Your task to perform on an android device: Search for panasonic triple a on target, select the first entry, add it to the cart, then select checkout. Image 0: 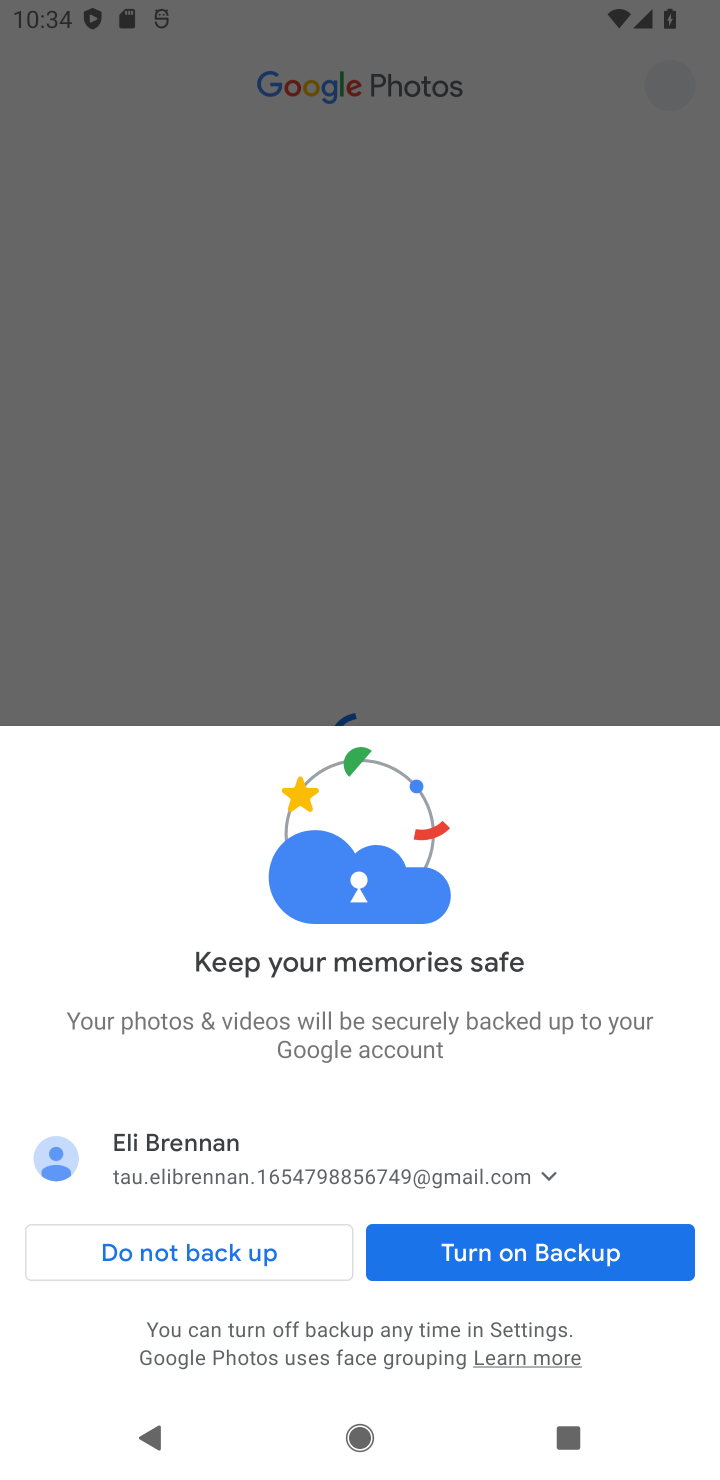
Step 0: press home button
Your task to perform on an android device: Search for panasonic triple a on target, select the first entry, add it to the cart, then select checkout. Image 1: 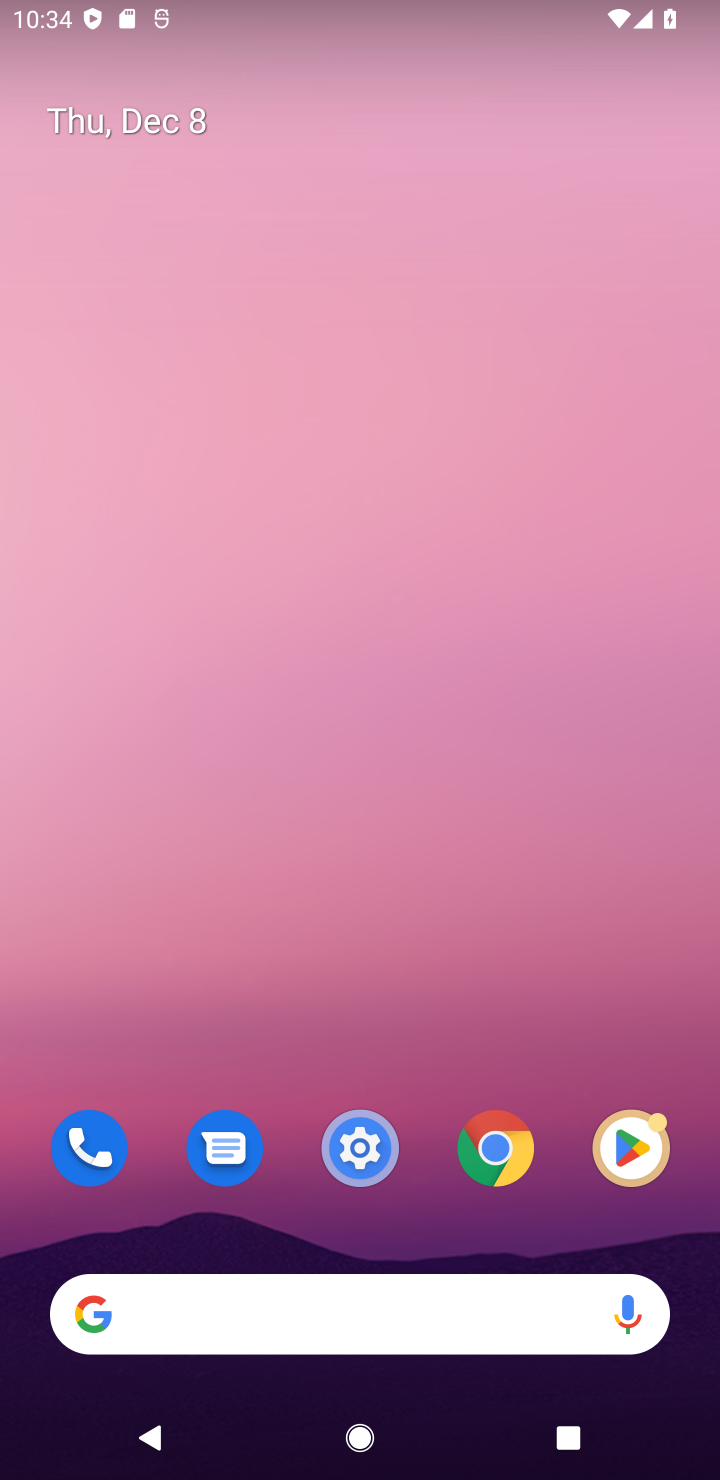
Step 1: click (260, 1309)
Your task to perform on an android device: Search for panasonic triple a on target, select the first entry, add it to the cart, then select checkout. Image 2: 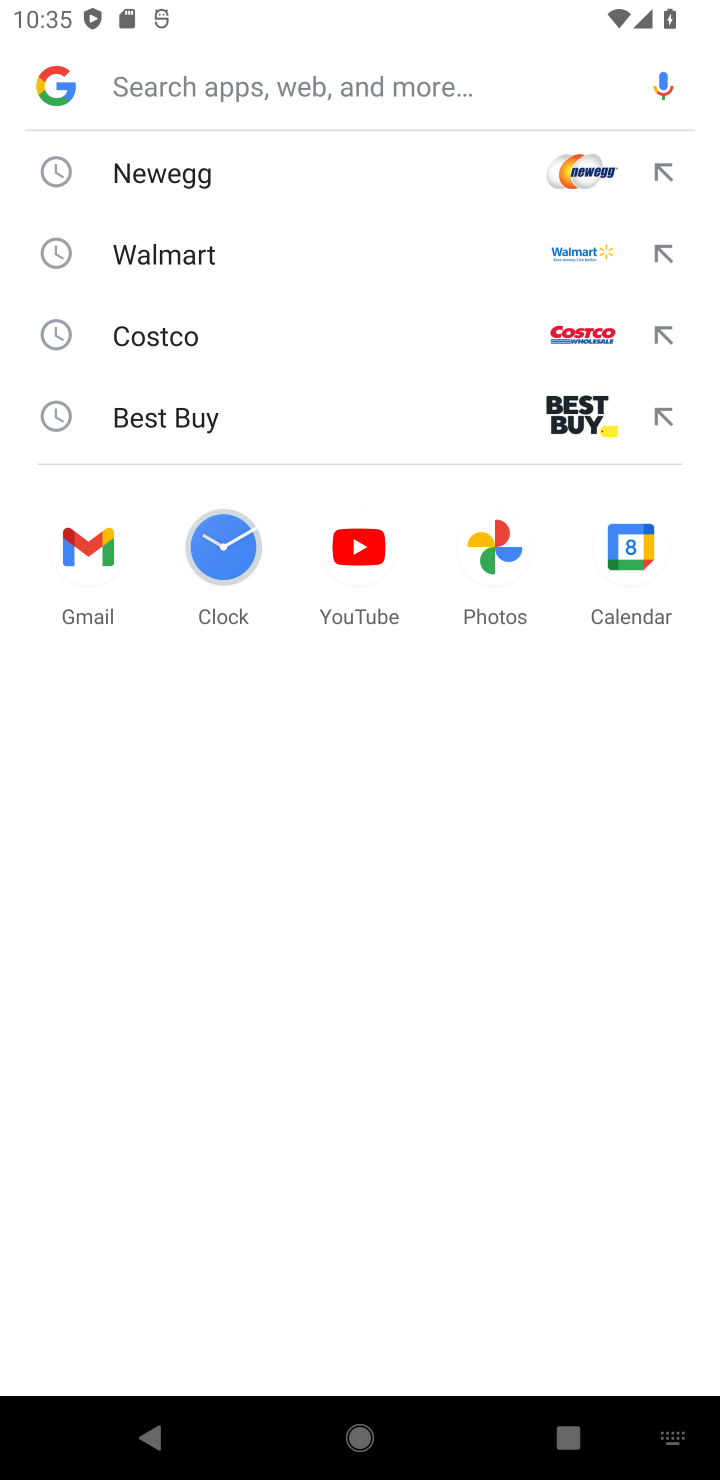
Step 2: type "target"
Your task to perform on an android device: Search for panasonic triple a on target, select the first entry, add it to the cart, then select checkout. Image 3: 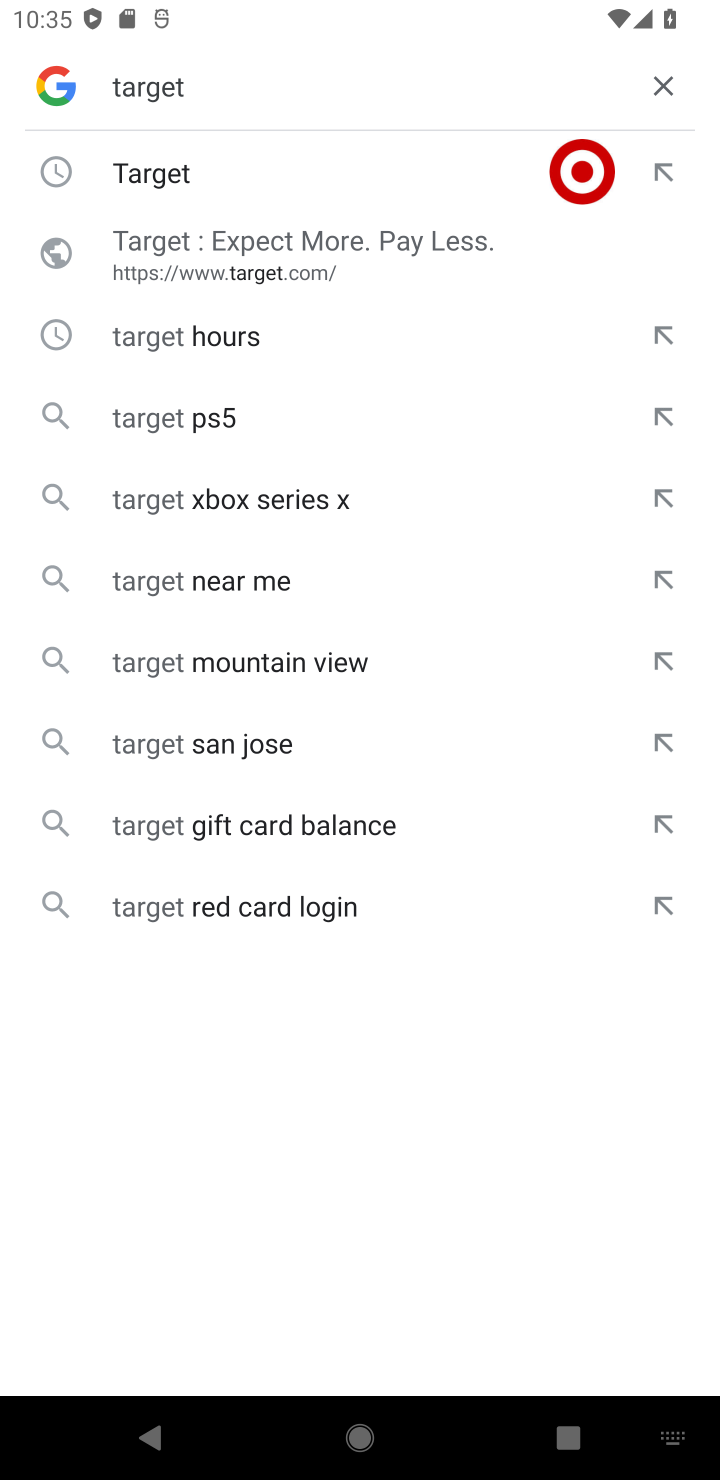
Step 3: click (170, 168)
Your task to perform on an android device: Search for panasonic triple a on target, select the first entry, add it to the cart, then select checkout. Image 4: 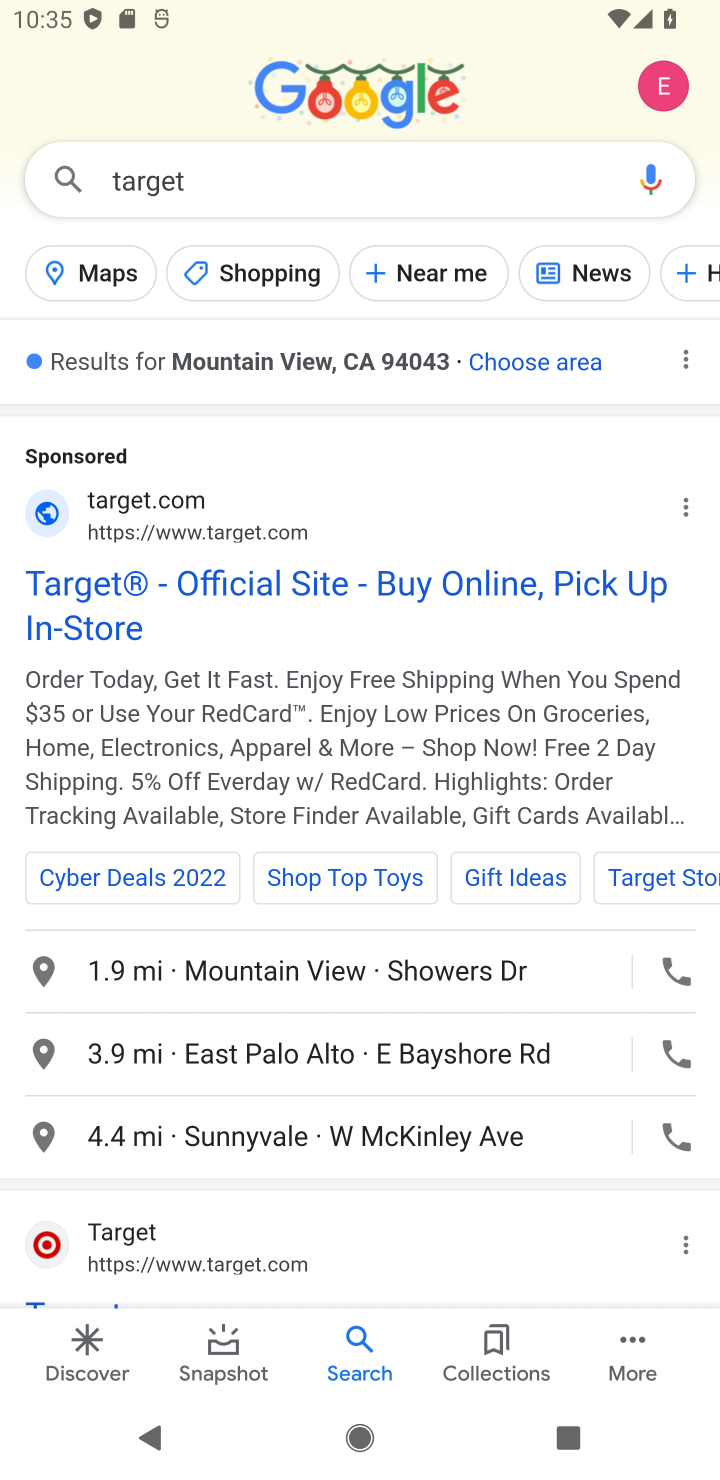
Step 4: click (149, 496)
Your task to perform on an android device: Search for panasonic triple a on target, select the first entry, add it to the cart, then select checkout. Image 5: 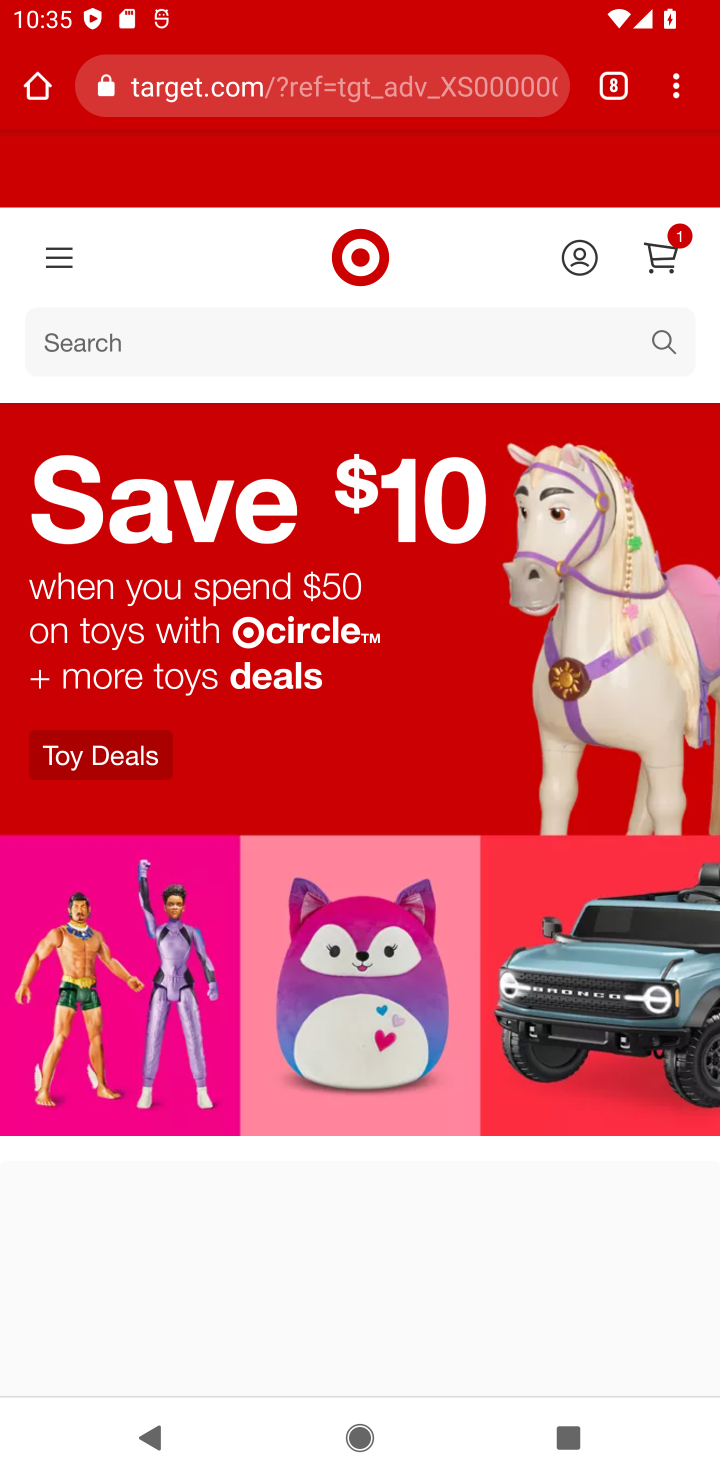
Step 5: click (200, 340)
Your task to perform on an android device: Search for panasonic triple a on target, select the first entry, add it to the cart, then select checkout. Image 6: 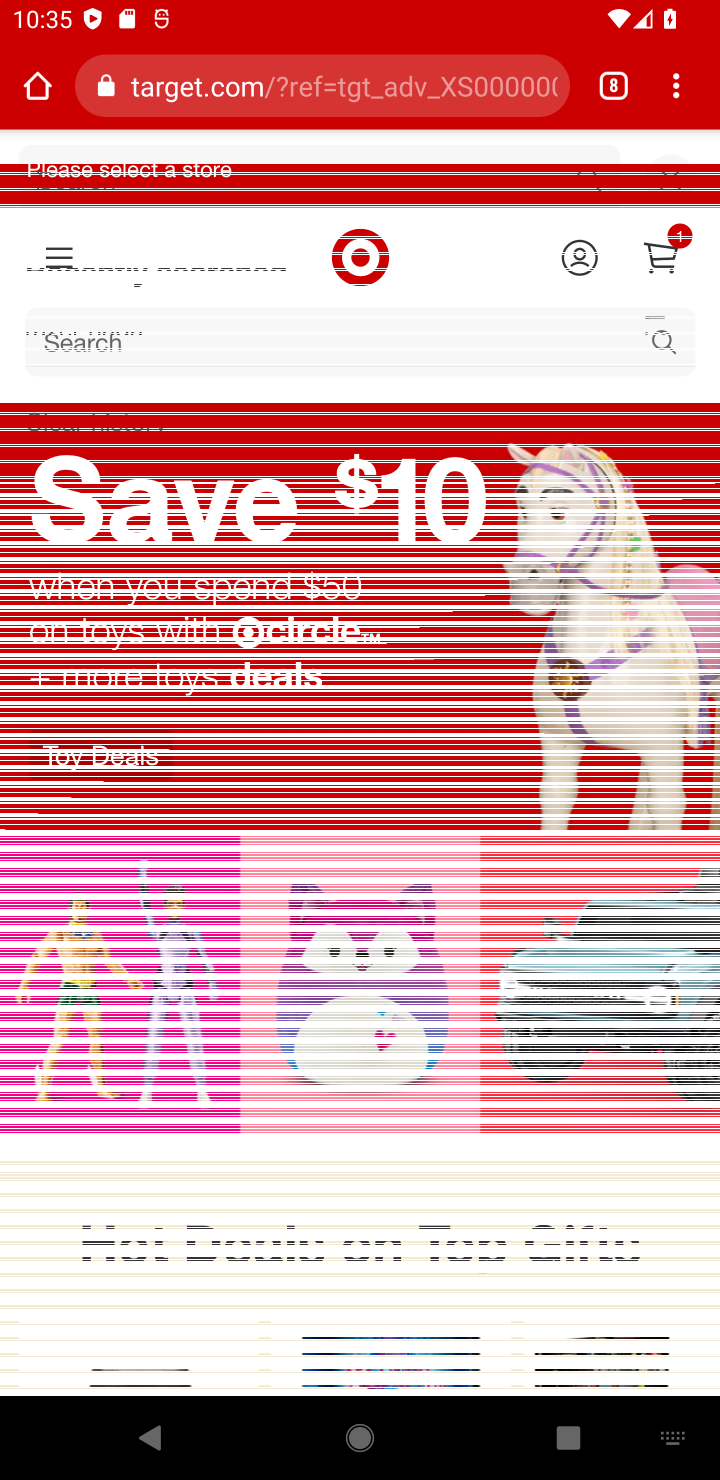
Step 6: type "panasonic triple a"
Your task to perform on an android device: Search for panasonic triple a on target, select the first entry, add it to the cart, then select checkout. Image 7: 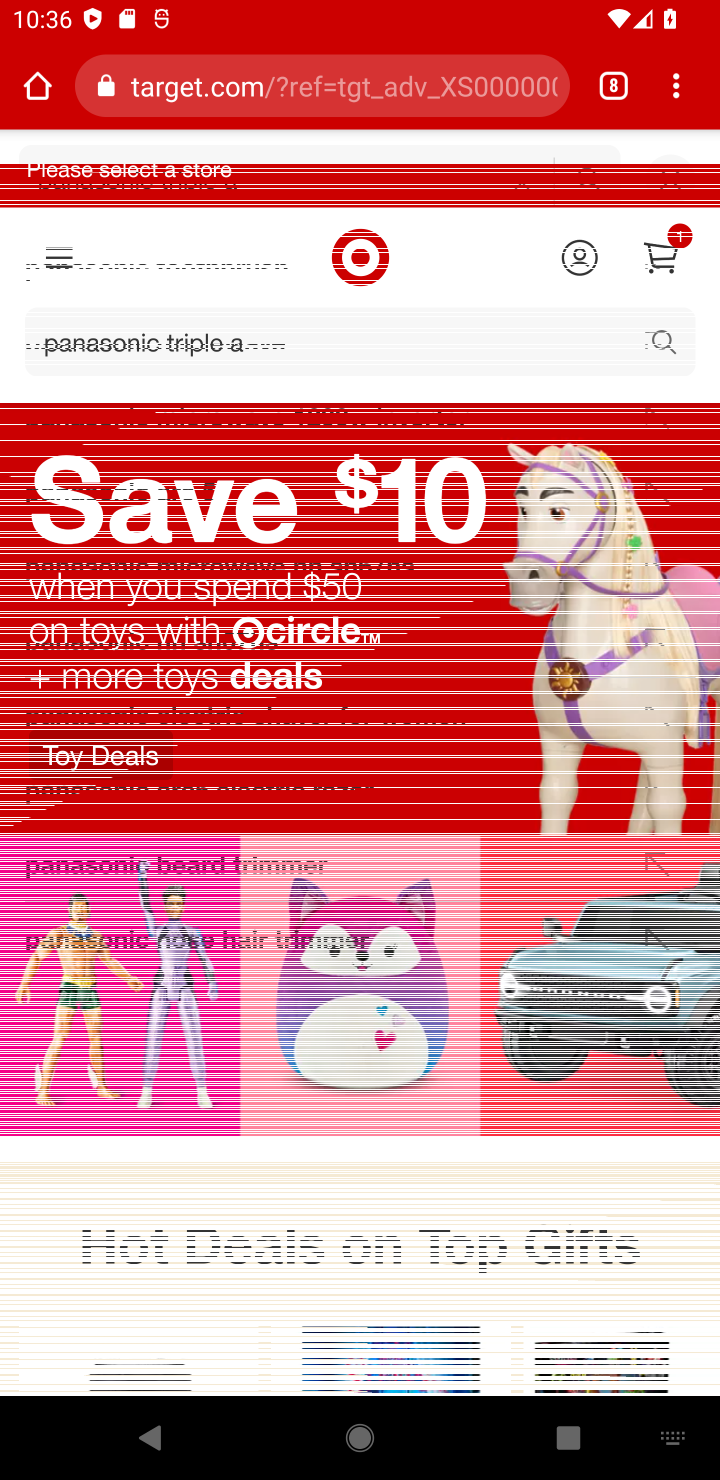
Step 7: click (590, 168)
Your task to perform on an android device: Search for panasonic triple a on target, select the first entry, add it to the cart, then select checkout. Image 8: 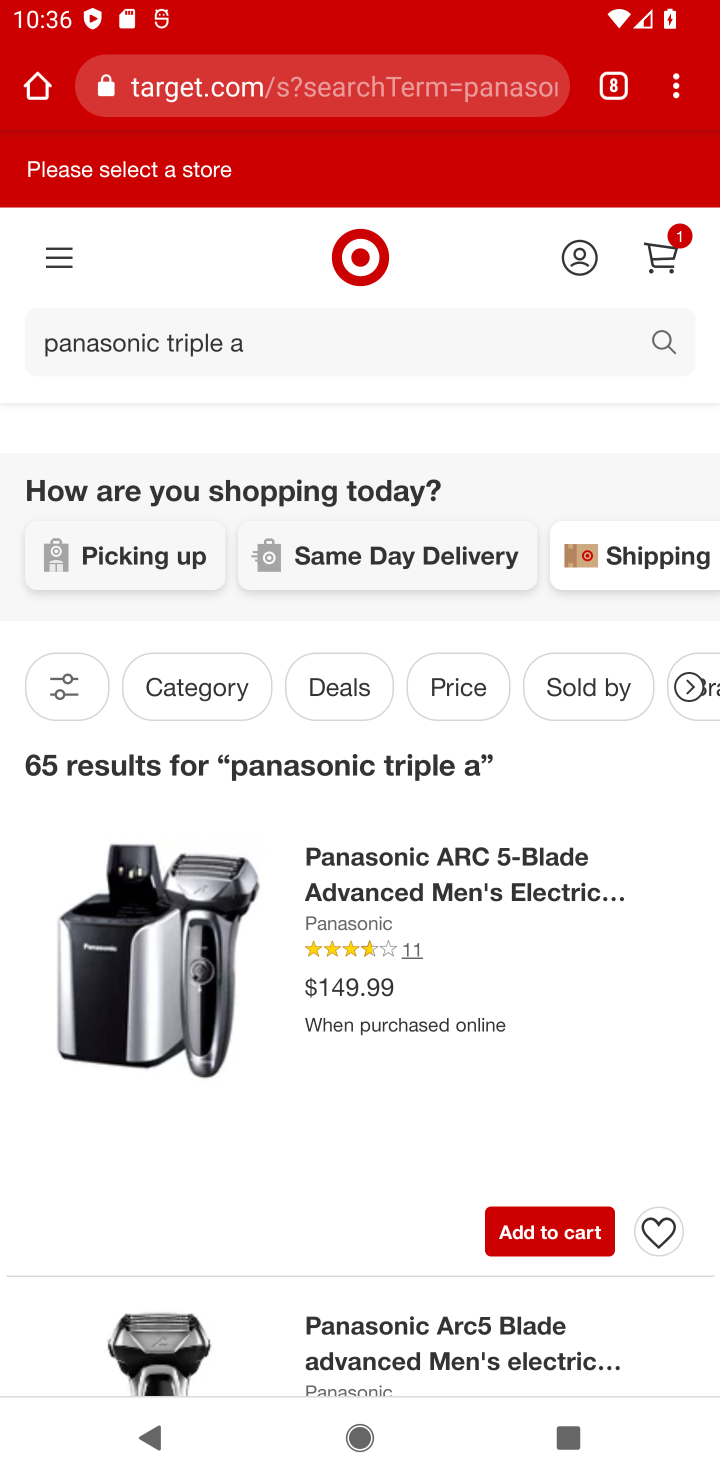
Step 8: click (522, 1239)
Your task to perform on an android device: Search for panasonic triple a on target, select the first entry, add it to the cart, then select checkout. Image 9: 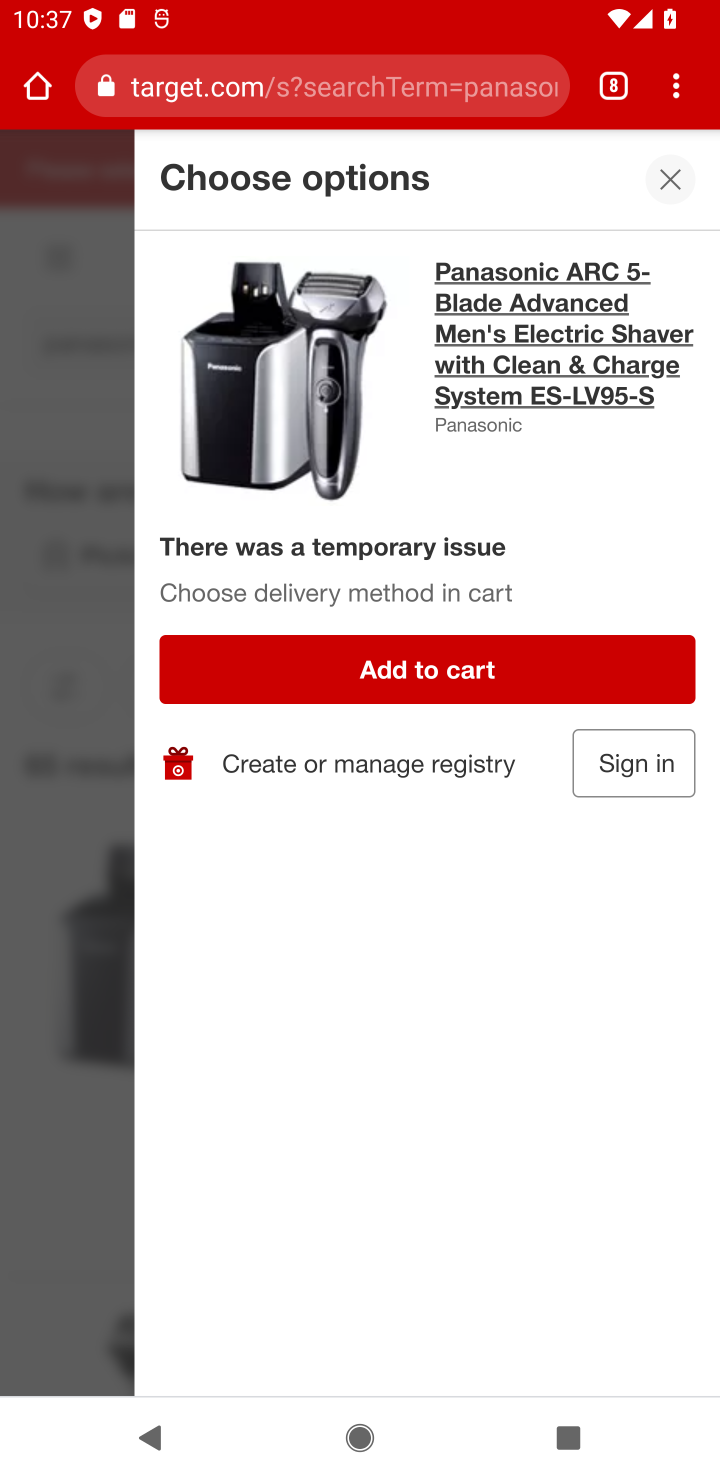
Step 9: click (418, 668)
Your task to perform on an android device: Search for panasonic triple a on target, select the first entry, add it to the cart, then select checkout. Image 10: 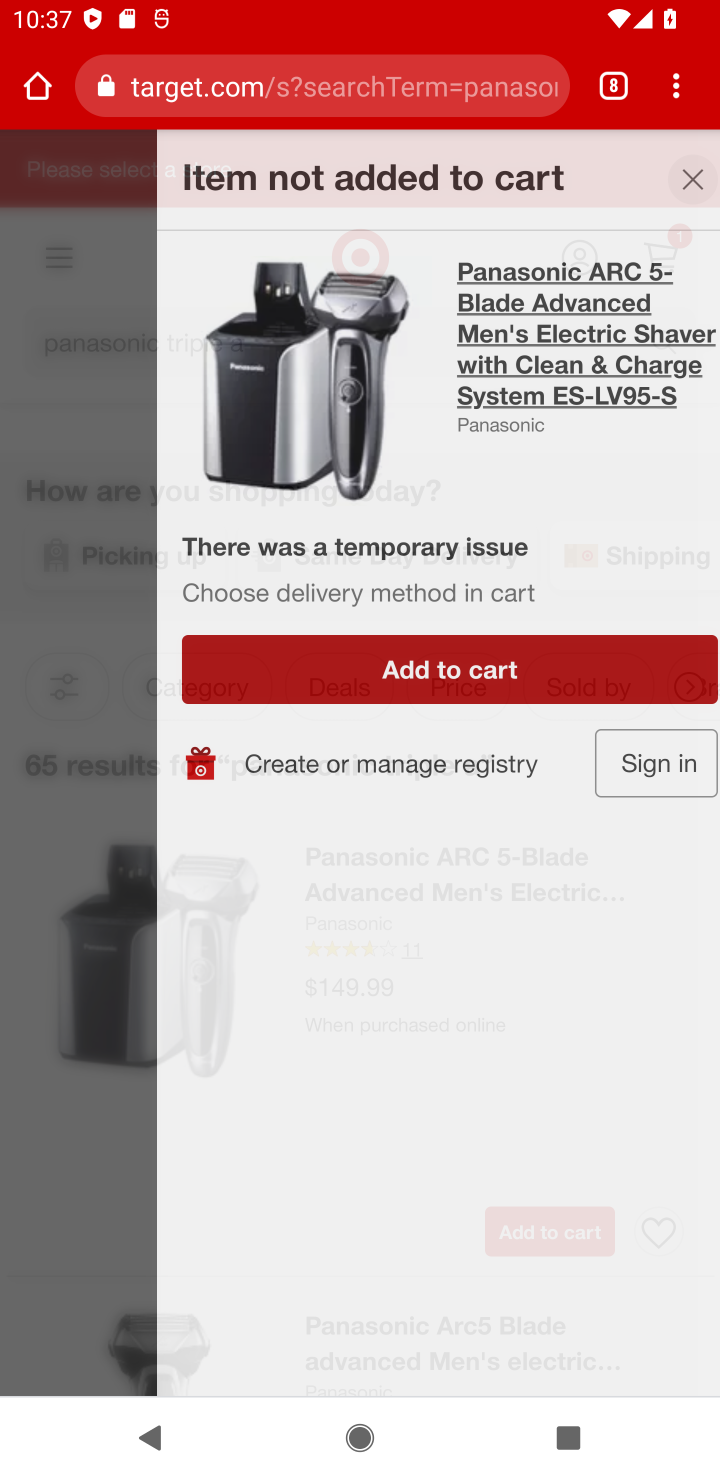
Step 10: click (461, 678)
Your task to perform on an android device: Search for panasonic triple a on target, select the first entry, add it to the cart, then select checkout. Image 11: 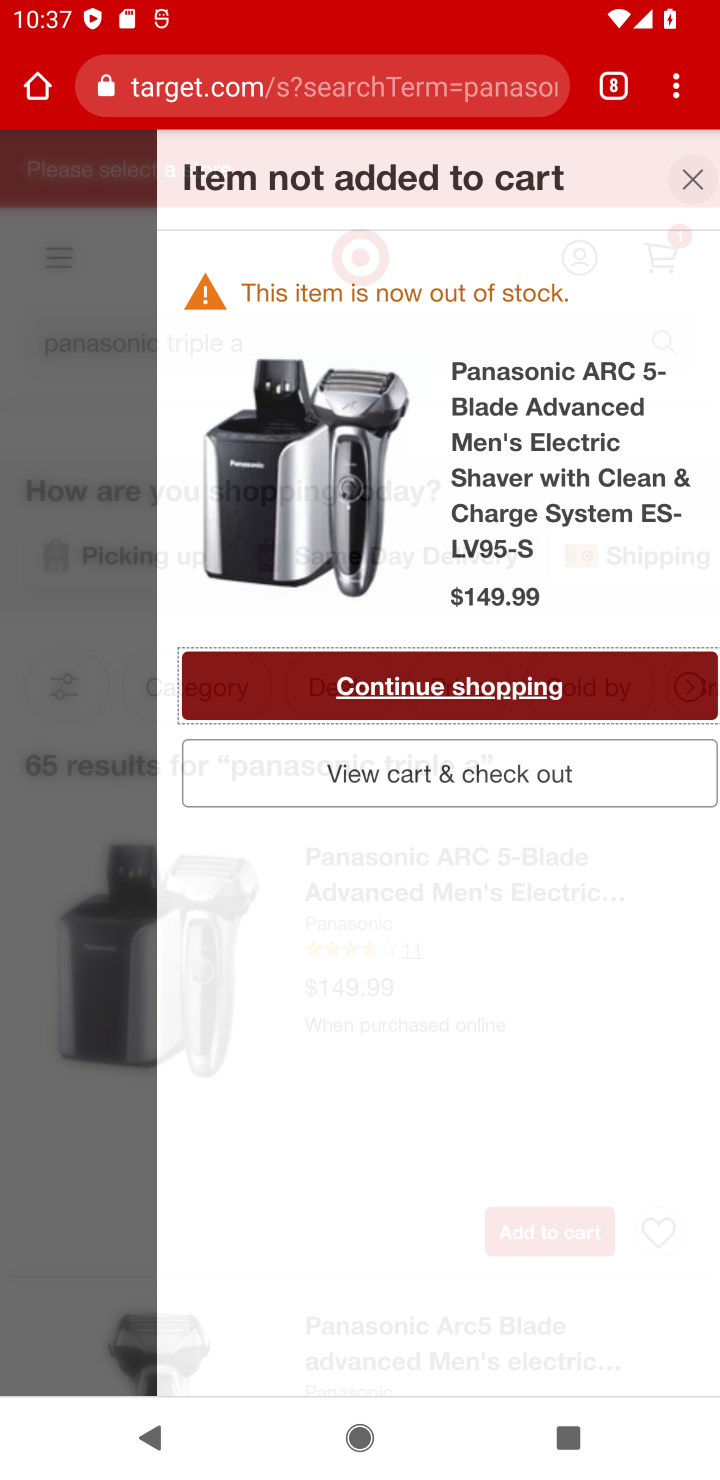
Step 11: task complete